Your task to perform on an android device: toggle pop-ups in chrome Image 0: 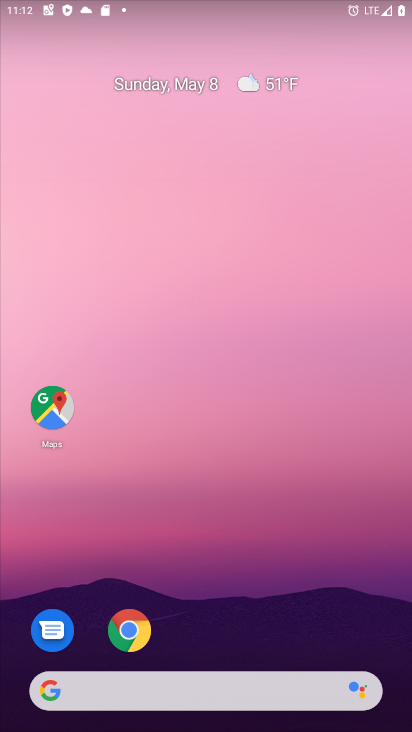
Step 0: drag from (375, 640) to (304, 80)
Your task to perform on an android device: toggle pop-ups in chrome Image 1: 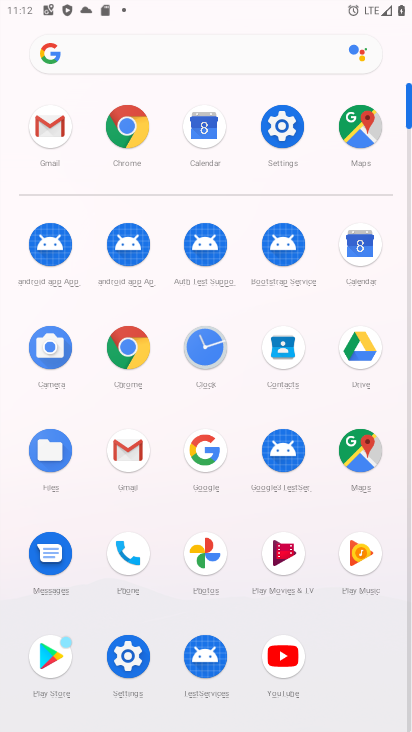
Step 1: click (133, 146)
Your task to perform on an android device: toggle pop-ups in chrome Image 2: 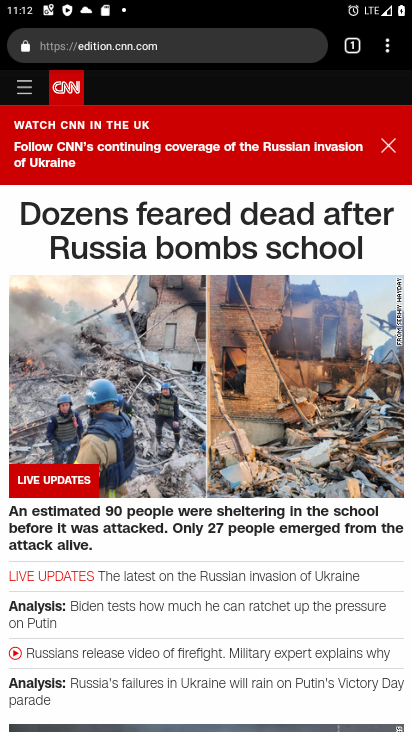
Step 2: press back button
Your task to perform on an android device: toggle pop-ups in chrome Image 3: 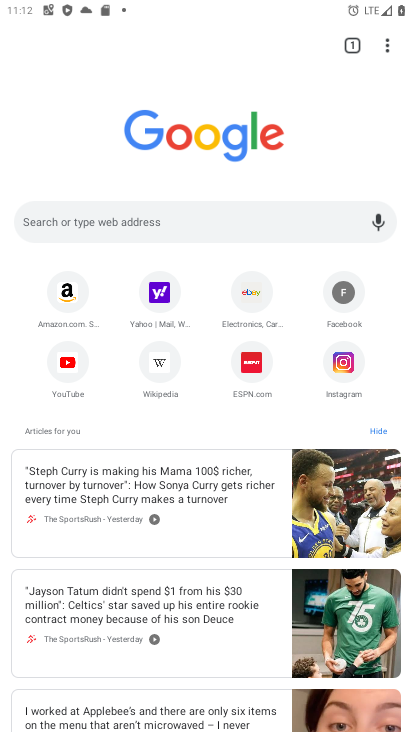
Step 3: click (389, 44)
Your task to perform on an android device: toggle pop-ups in chrome Image 4: 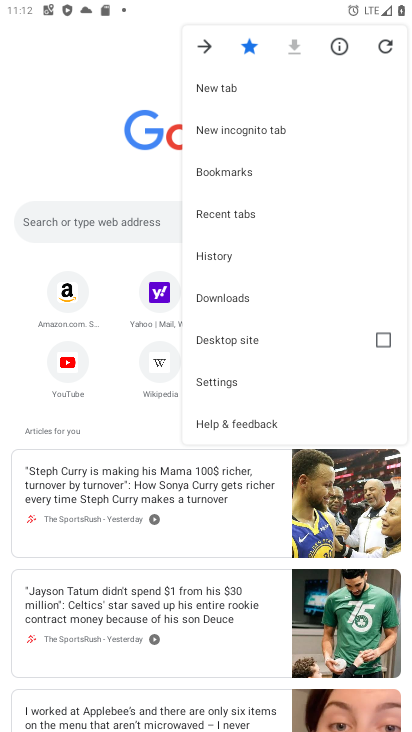
Step 4: click (246, 383)
Your task to perform on an android device: toggle pop-ups in chrome Image 5: 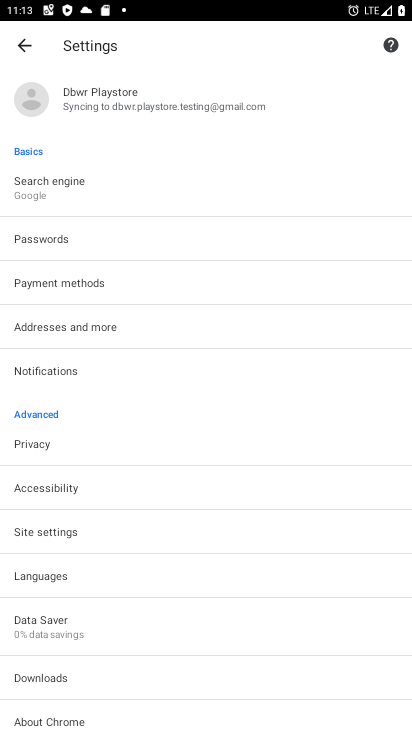
Step 5: click (118, 522)
Your task to perform on an android device: toggle pop-ups in chrome Image 6: 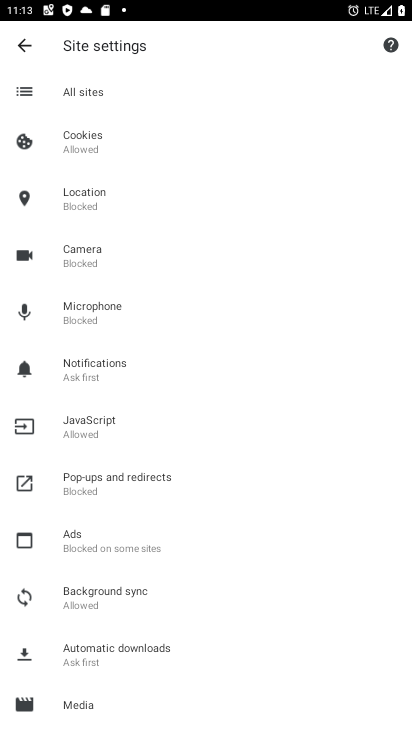
Step 6: click (155, 481)
Your task to perform on an android device: toggle pop-ups in chrome Image 7: 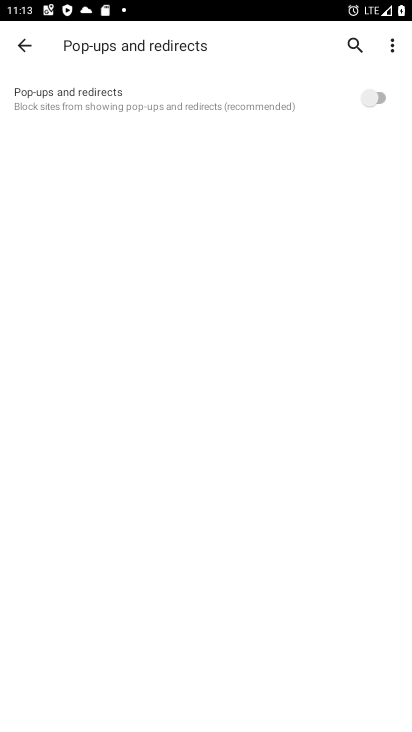
Step 7: click (346, 105)
Your task to perform on an android device: toggle pop-ups in chrome Image 8: 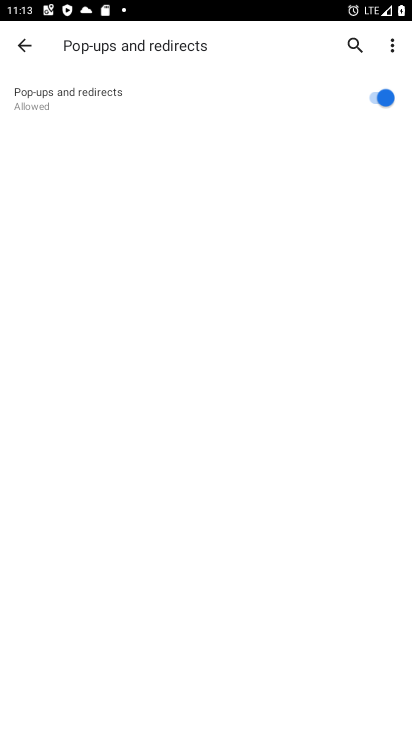
Step 8: task complete